Your task to perform on an android device: Show me recent news Image 0: 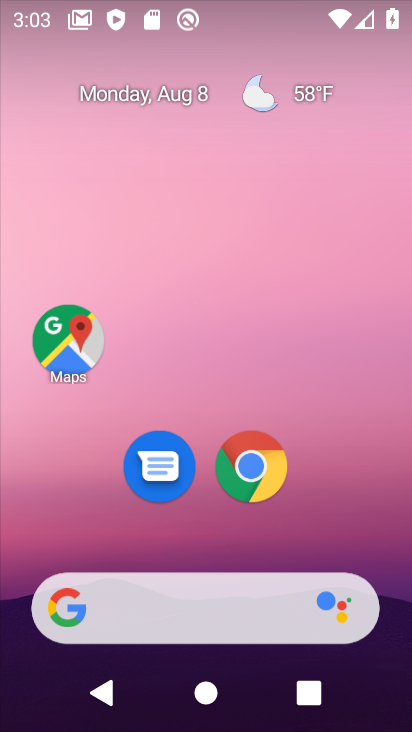
Step 0: drag from (212, 531) to (215, 48)
Your task to perform on an android device: Show me recent news Image 1: 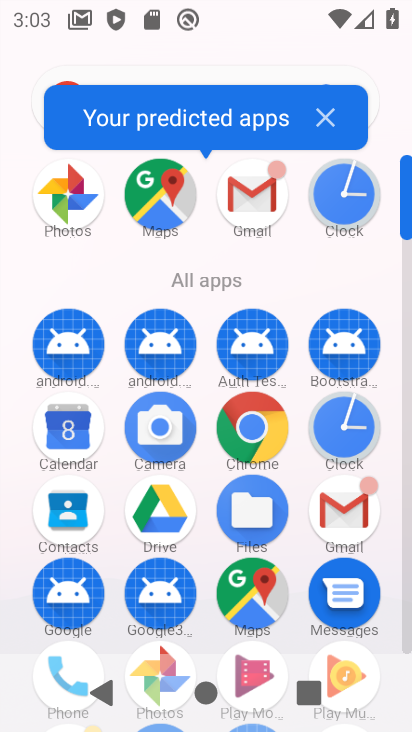
Step 1: click (241, 436)
Your task to perform on an android device: Show me recent news Image 2: 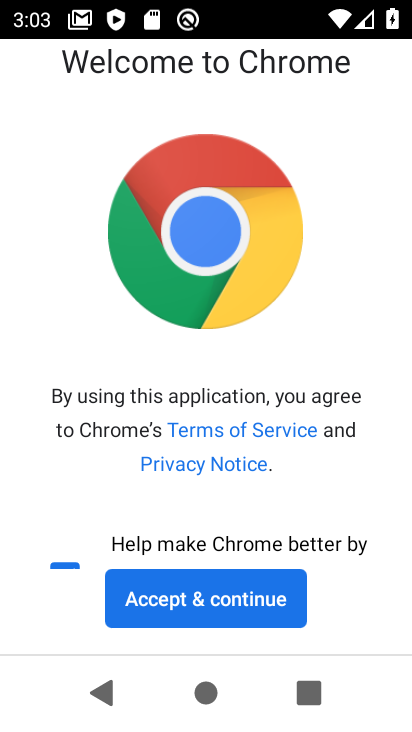
Step 2: click (231, 609)
Your task to perform on an android device: Show me recent news Image 3: 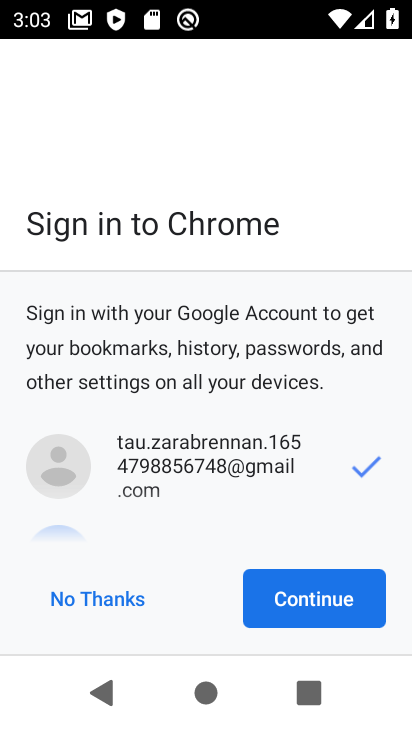
Step 3: click (314, 595)
Your task to perform on an android device: Show me recent news Image 4: 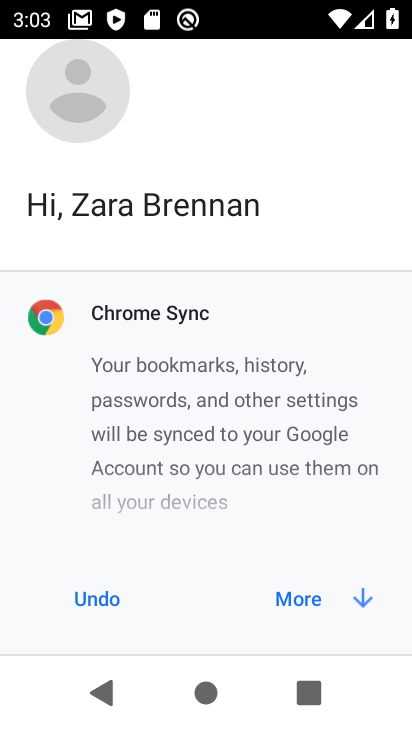
Step 4: click (314, 595)
Your task to perform on an android device: Show me recent news Image 5: 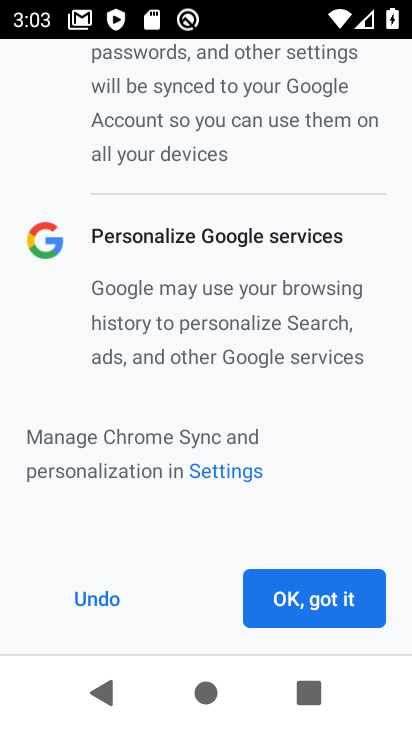
Step 5: click (304, 598)
Your task to perform on an android device: Show me recent news Image 6: 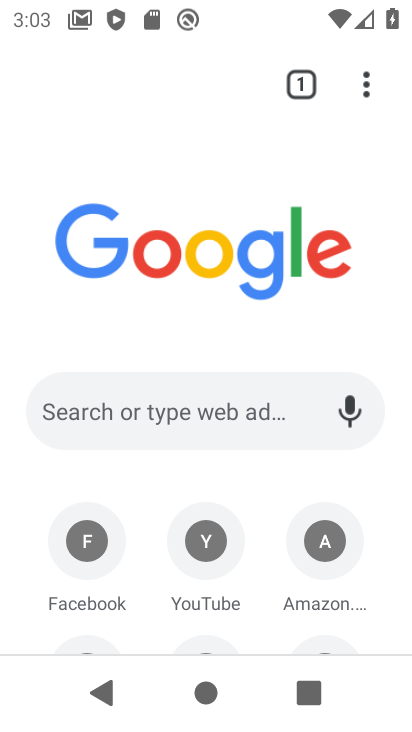
Step 6: click (357, 79)
Your task to perform on an android device: Show me recent news Image 7: 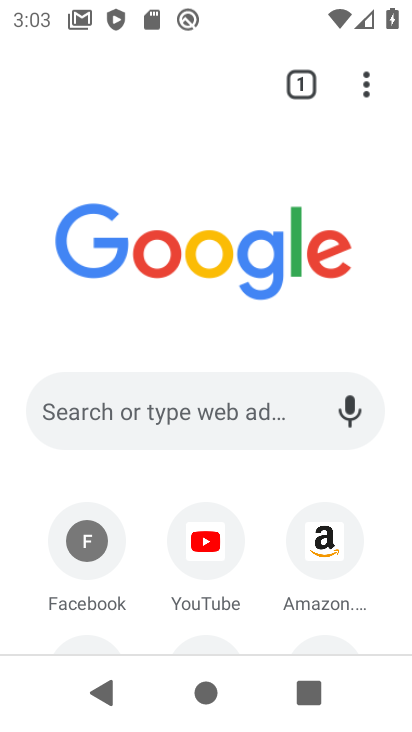
Step 7: click (188, 420)
Your task to perform on an android device: Show me recent news Image 8: 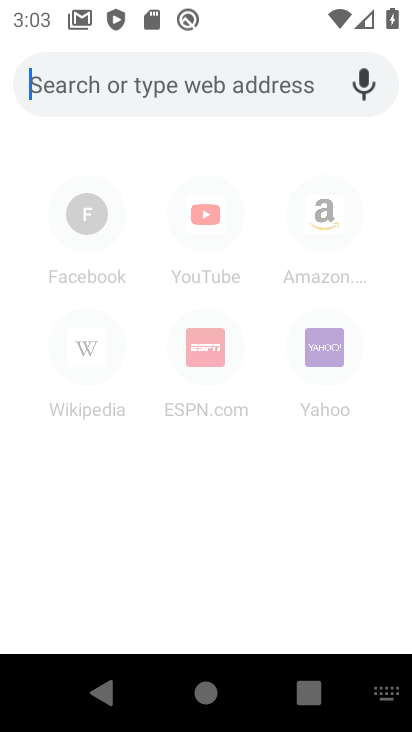
Step 8: type "What's the weather today? "
Your task to perform on an android device: Show me recent news Image 9: 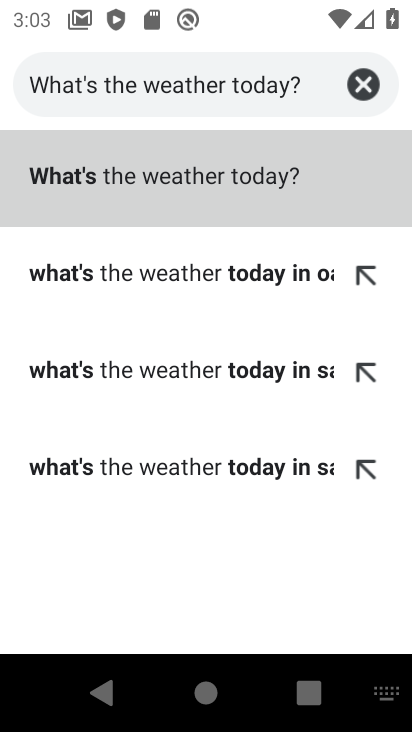
Step 9: click (180, 176)
Your task to perform on an android device: Show me recent news Image 10: 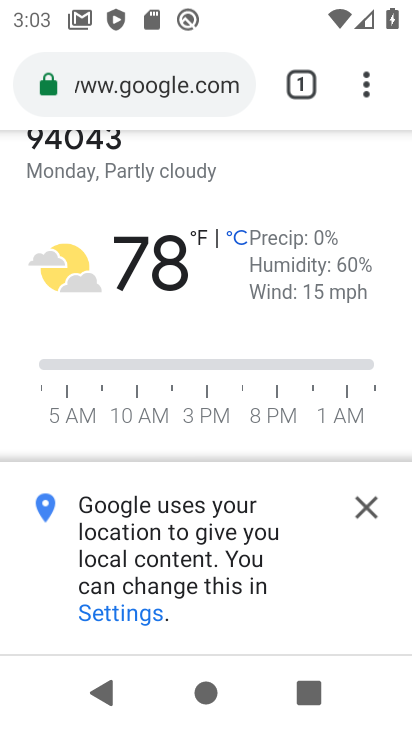
Step 10: click (351, 500)
Your task to perform on an android device: Show me recent news Image 11: 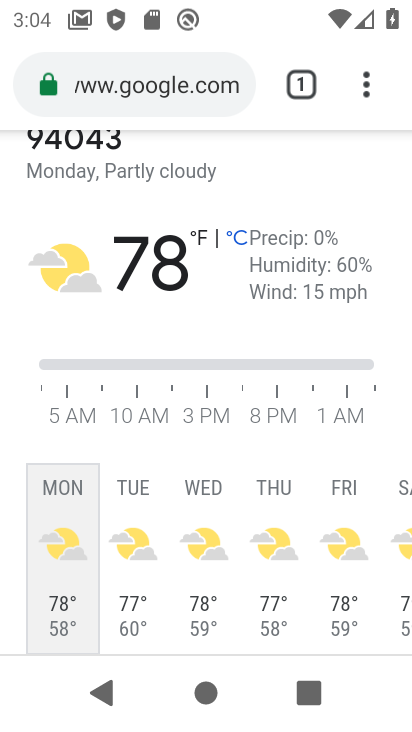
Step 11: task complete